Your task to perform on an android device: change the clock display to digital Image 0: 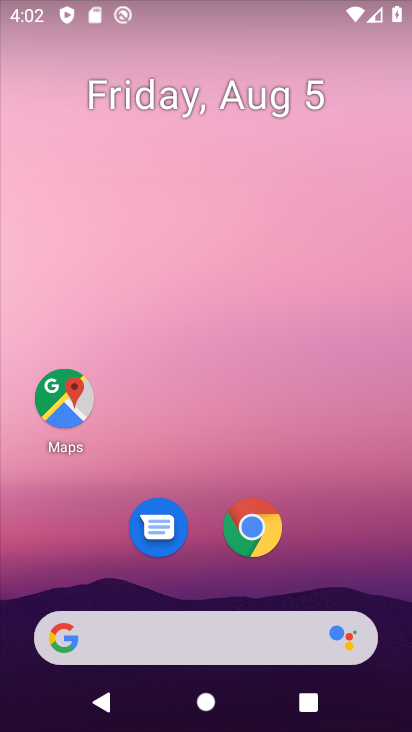
Step 0: press home button
Your task to perform on an android device: change the clock display to digital Image 1: 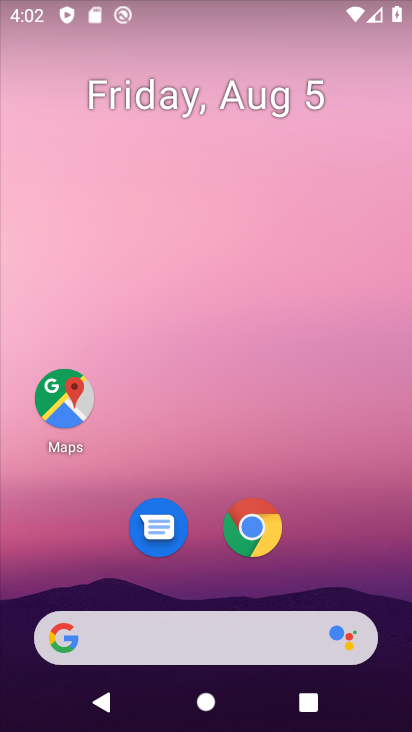
Step 1: drag from (210, 585) to (197, 75)
Your task to perform on an android device: change the clock display to digital Image 2: 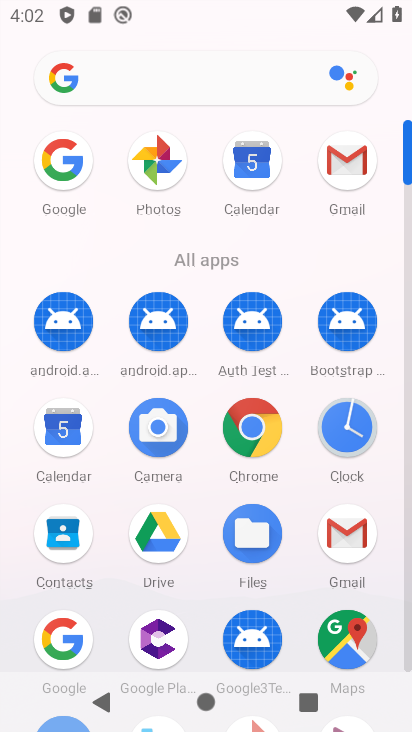
Step 2: click (344, 423)
Your task to perform on an android device: change the clock display to digital Image 3: 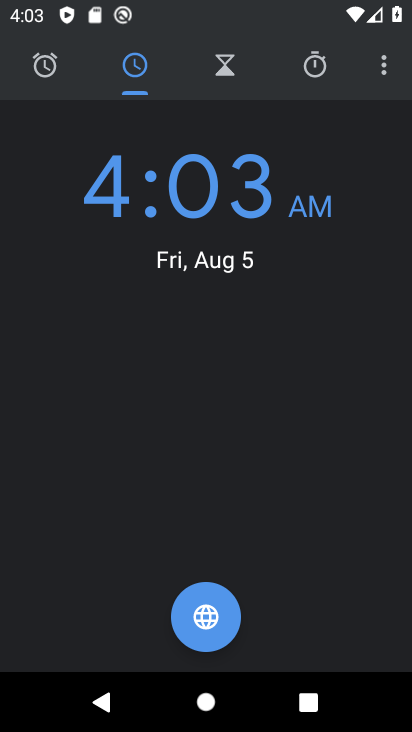
Step 3: click (383, 69)
Your task to perform on an android device: change the clock display to digital Image 4: 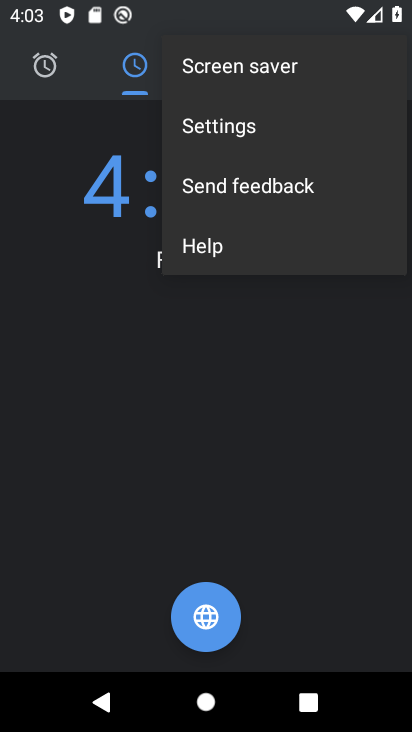
Step 4: click (259, 131)
Your task to perform on an android device: change the clock display to digital Image 5: 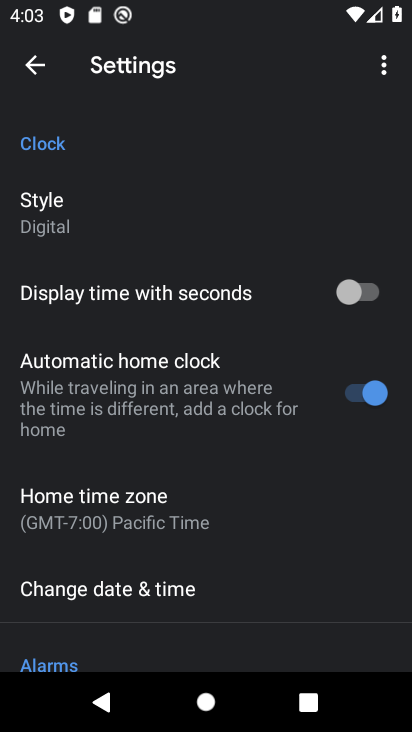
Step 5: task complete